Your task to perform on an android device: Go to ESPN.com Image 0: 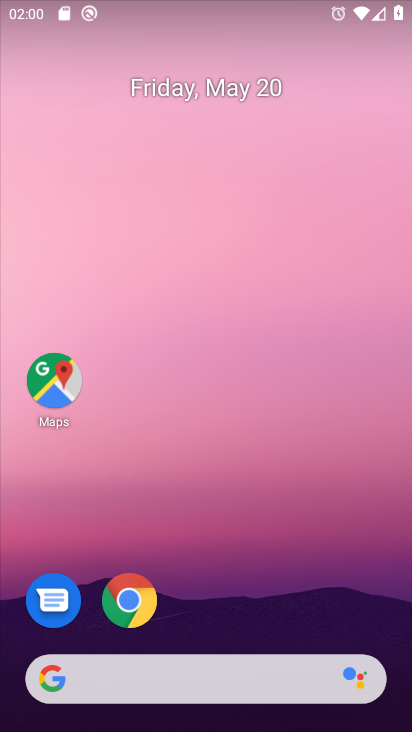
Step 0: click (137, 602)
Your task to perform on an android device: Go to ESPN.com Image 1: 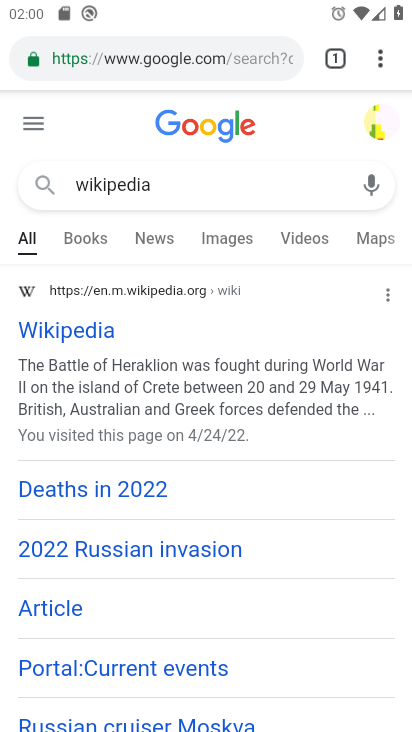
Step 1: click (212, 57)
Your task to perform on an android device: Go to ESPN.com Image 2: 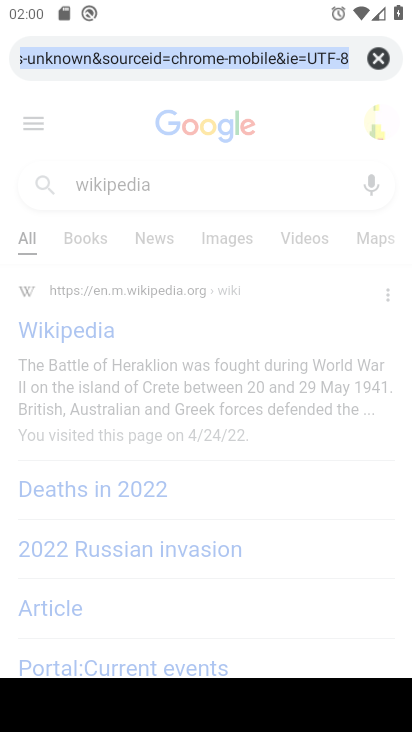
Step 2: type "ESPN.com"
Your task to perform on an android device: Go to ESPN.com Image 3: 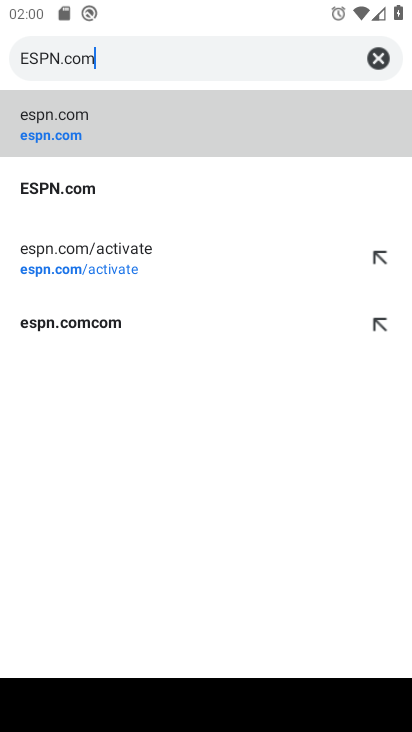
Step 3: click (89, 144)
Your task to perform on an android device: Go to ESPN.com Image 4: 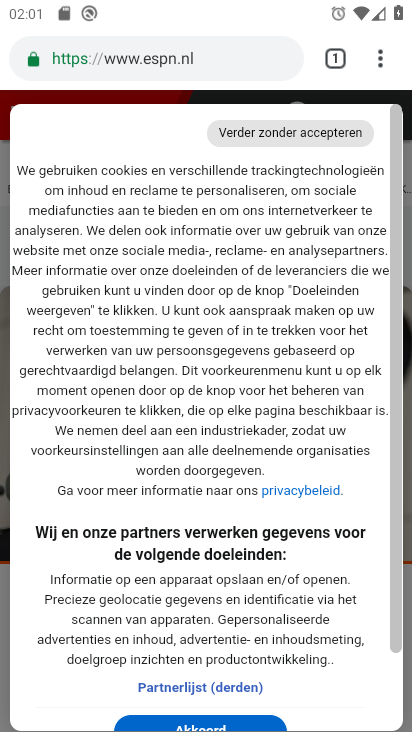
Step 4: task complete